Your task to perform on an android device: Do I have any events today? Image 0: 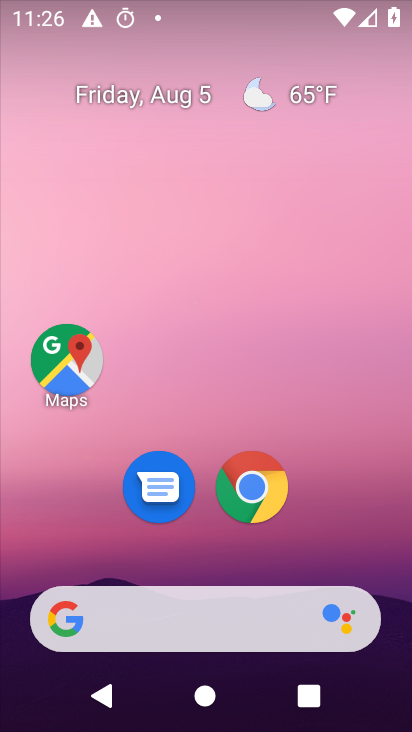
Step 0: click (202, 628)
Your task to perform on an android device: Do I have any events today? Image 1: 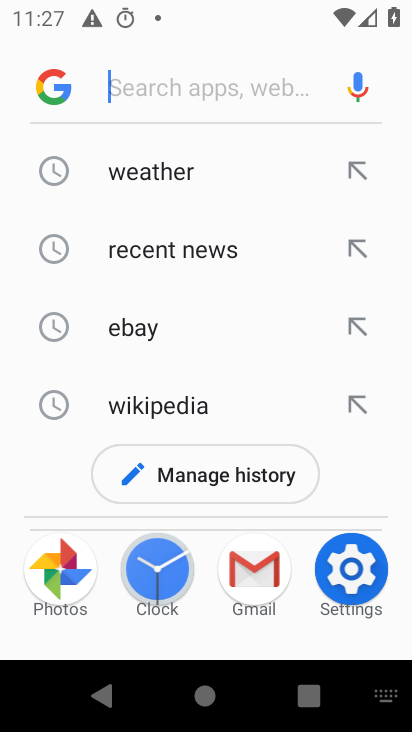
Step 1: press back button
Your task to perform on an android device: Do I have any events today? Image 2: 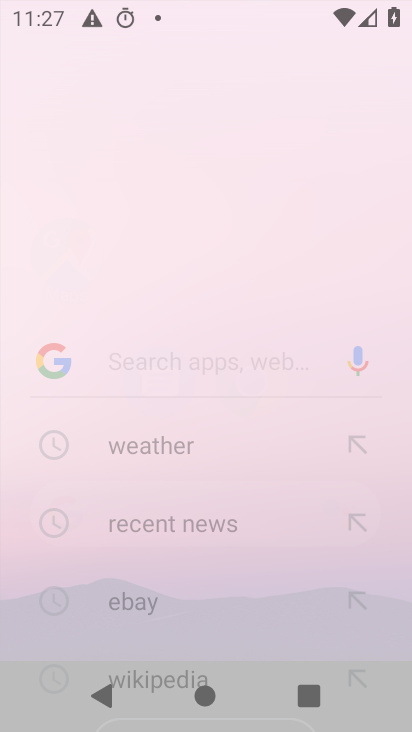
Step 2: press back button
Your task to perform on an android device: Do I have any events today? Image 3: 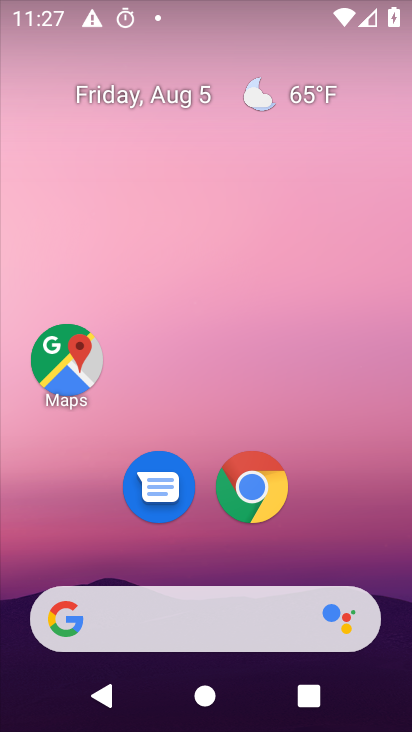
Step 3: drag from (165, 585) to (287, 45)
Your task to perform on an android device: Do I have any events today? Image 4: 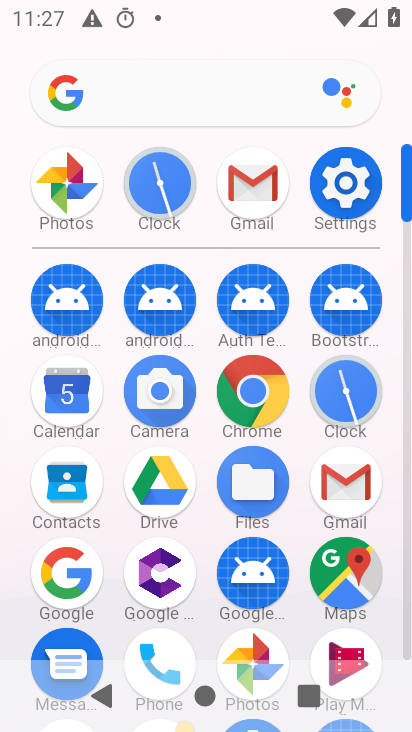
Step 4: click (66, 414)
Your task to perform on an android device: Do I have any events today? Image 5: 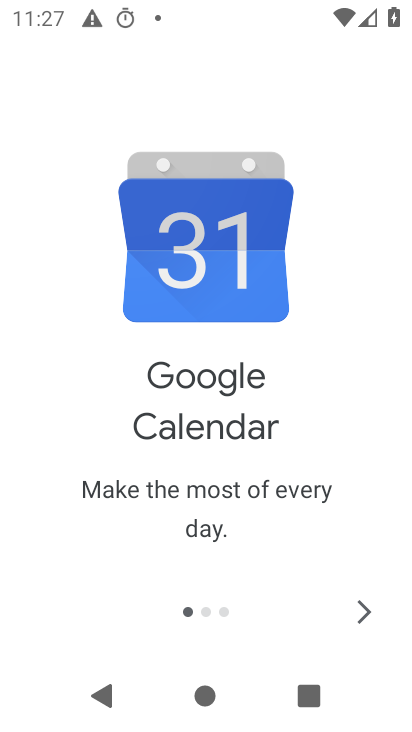
Step 5: press back button
Your task to perform on an android device: Do I have any events today? Image 6: 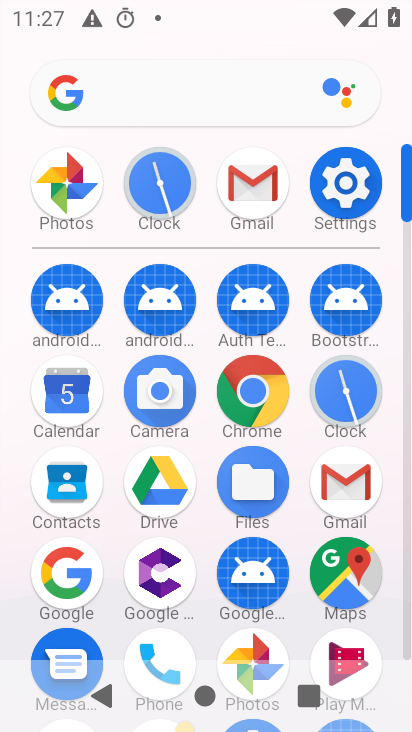
Step 6: click (70, 406)
Your task to perform on an android device: Do I have any events today? Image 7: 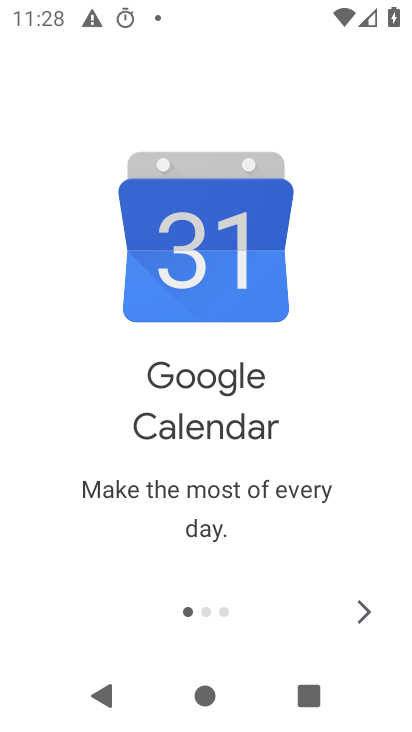
Step 7: click (369, 613)
Your task to perform on an android device: Do I have any events today? Image 8: 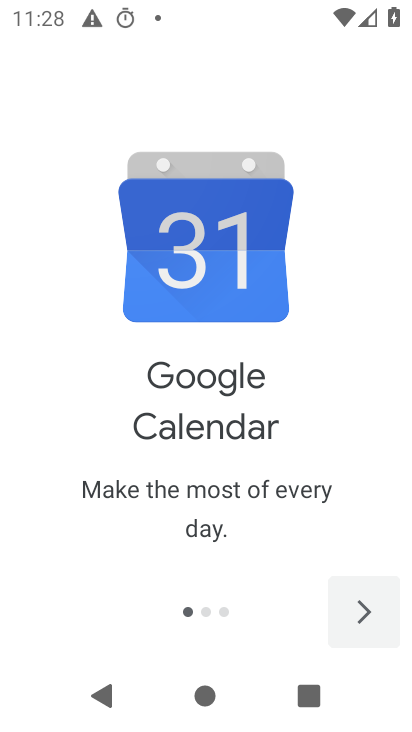
Step 8: click (368, 613)
Your task to perform on an android device: Do I have any events today? Image 9: 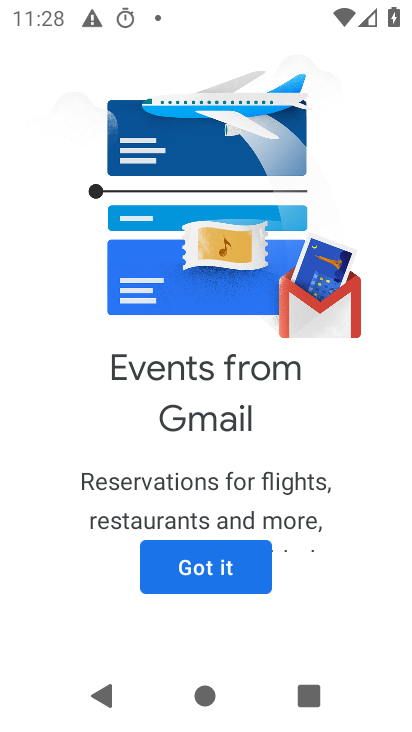
Step 9: click (200, 554)
Your task to perform on an android device: Do I have any events today? Image 10: 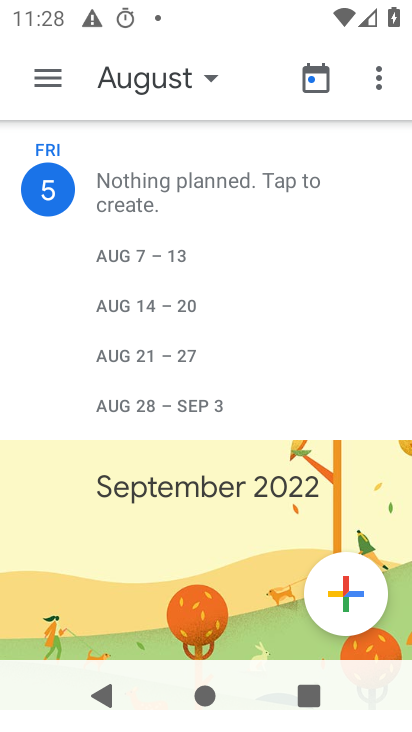
Step 10: task complete